Your task to perform on an android device: Open sound settings Image 0: 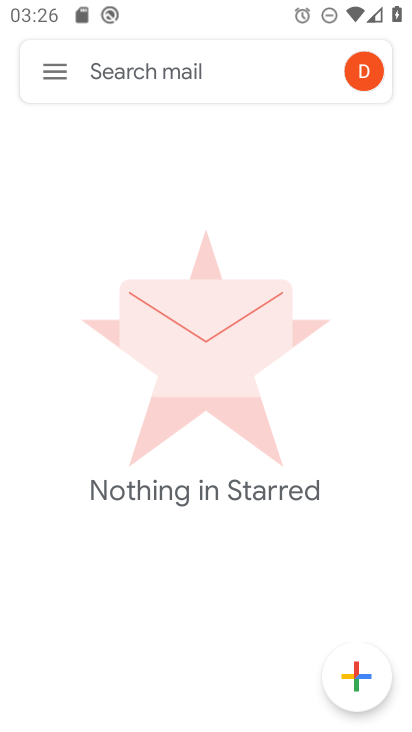
Step 0: press home button
Your task to perform on an android device: Open sound settings Image 1: 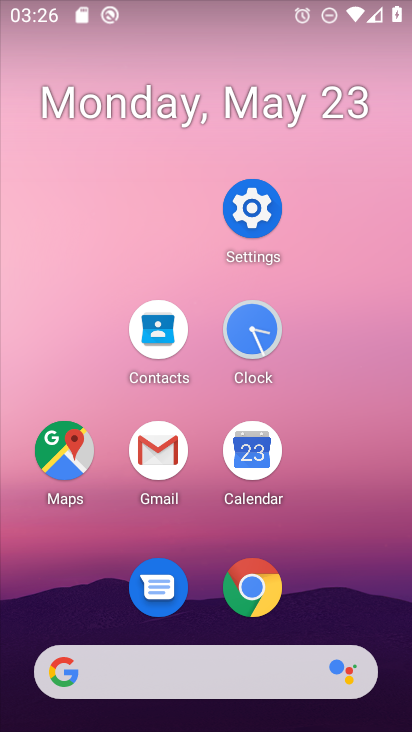
Step 1: click (246, 224)
Your task to perform on an android device: Open sound settings Image 2: 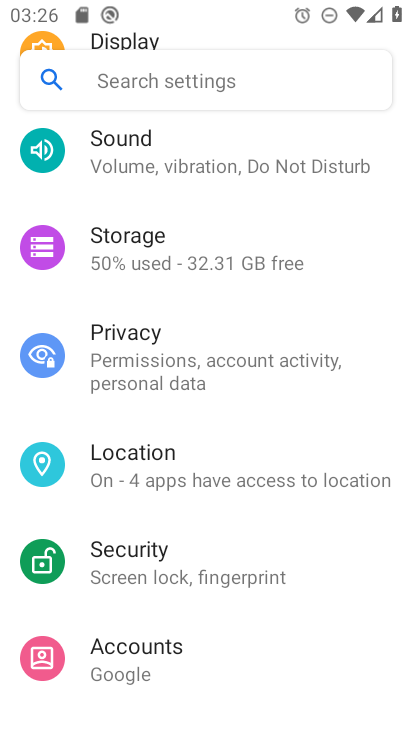
Step 2: click (195, 159)
Your task to perform on an android device: Open sound settings Image 3: 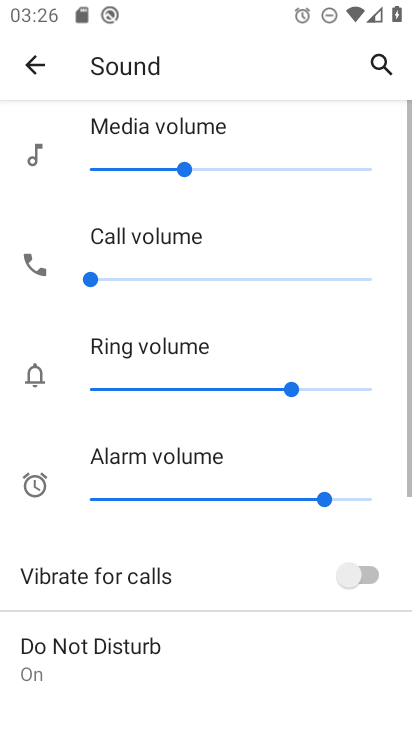
Step 3: task complete